Your task to perform on an android device: turn smart compose on in the gmail app Image 0: 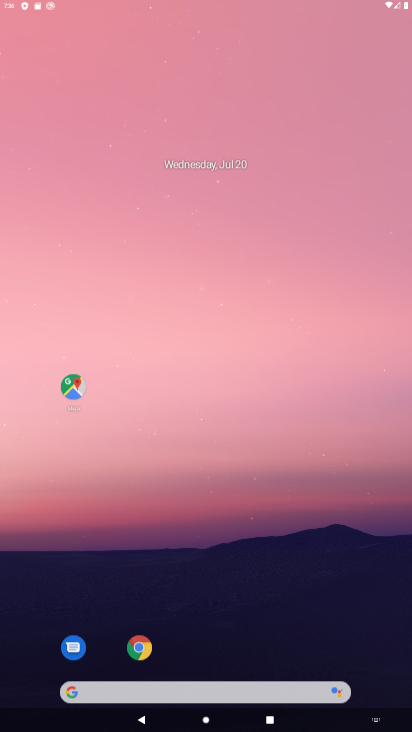
Step 0: drag from (195, 395) to (115, 13)
Your task to perform on an android device: turn smart compose on in the gmail app Image 1: 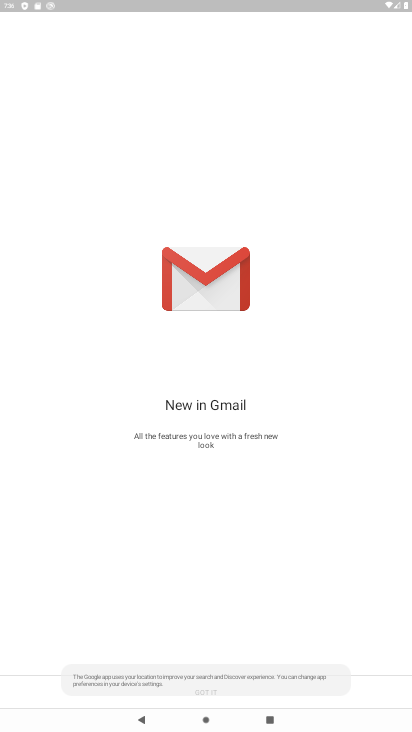
Step 1: click (278, 560)
Your task to perform on an android device: turn smart compose on in the gmail app Image 2: 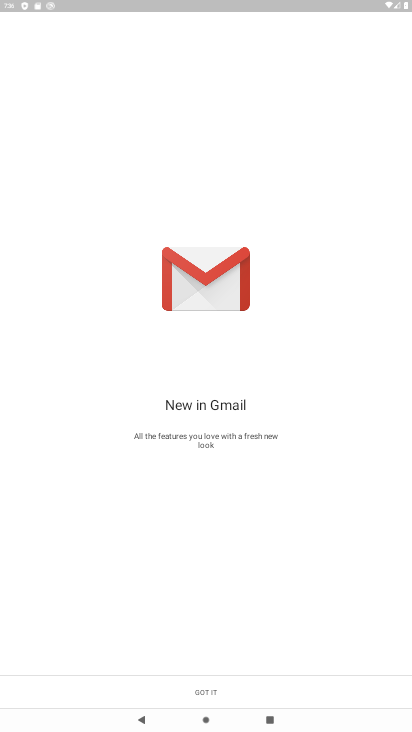
Step 2: click (210, 683)
Your task to perform on an android device: turn smart compose on in the gmail app Image 3: 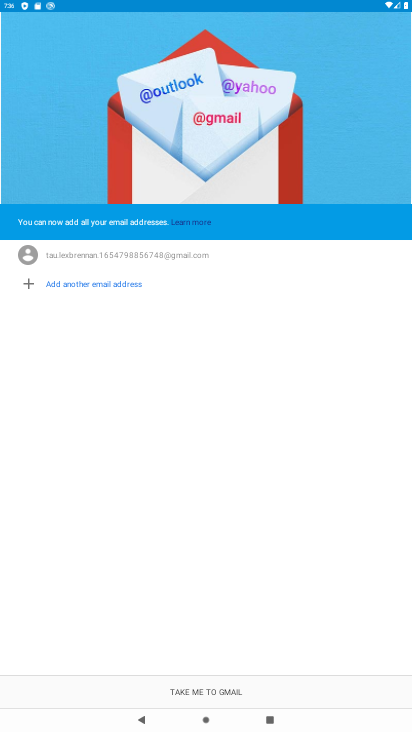
Step 3: click (210, 683)
Your task to perform on an android device: turn smart compose on in the gmail app Image 4: 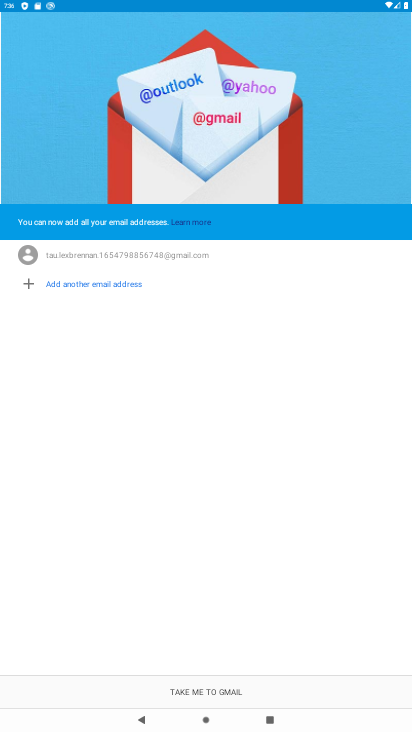
Step 4: click (210, 683)
Your task to perform on an android device: turn smart compose on in the gmail app Image 5: 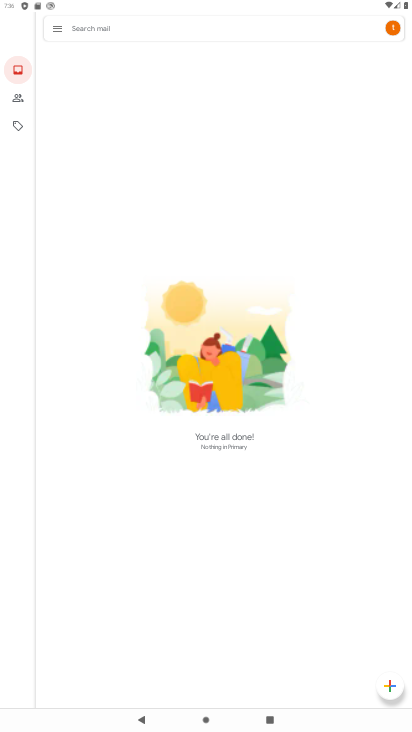
Step 5: click (51, 38)
Your task to perform on an android device: turn smart compose on in the gmail app Image 6: 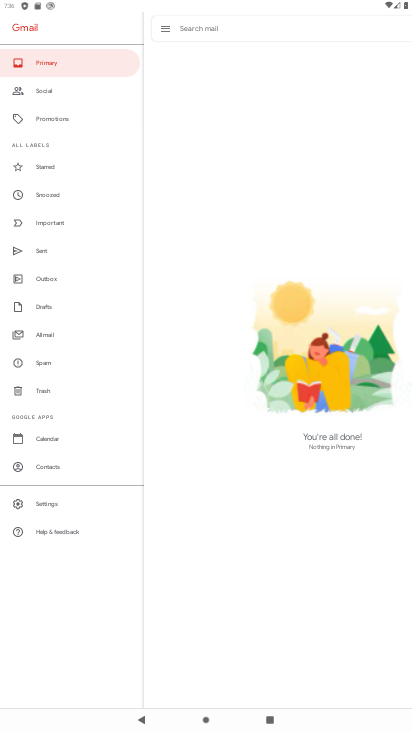
Step 6: click (56, 505)
Your task to perform on an android device: turn smart compose on in the gmail app Image 7: 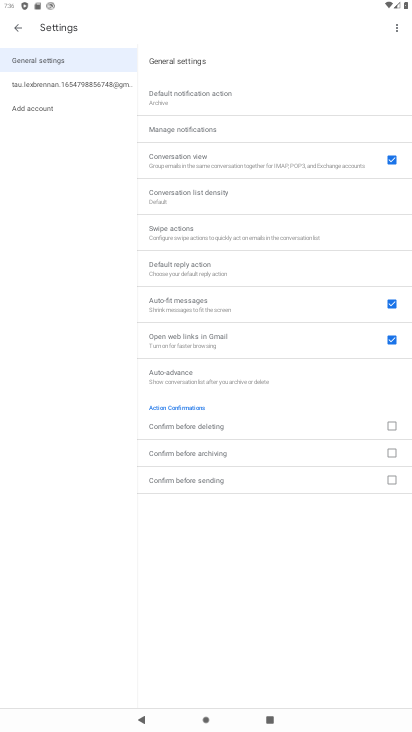
Step 7: click (73, 93)
Your task to perform on an android device: turn smart compose on in the gmail app Image 8: 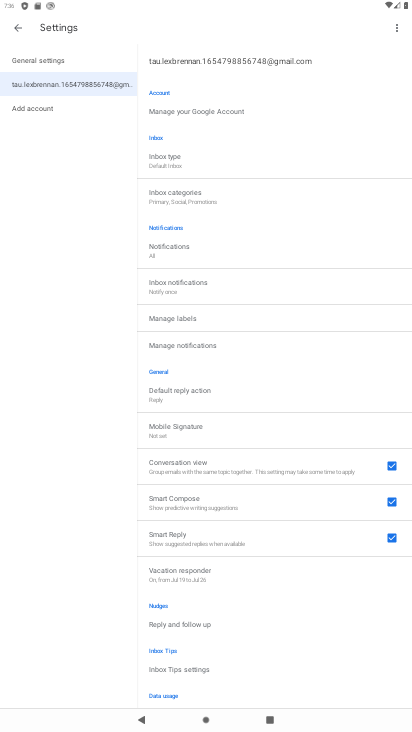
Step 8: click (385, 513)
Your task to perform on an android device: turn smart compose on in the gmail app Image 9: 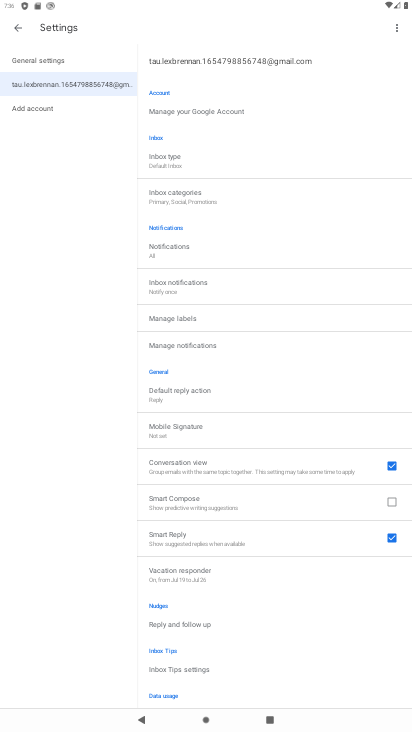
Step 9: task complete